Your task to perform on an android device: add a contact Image 0: 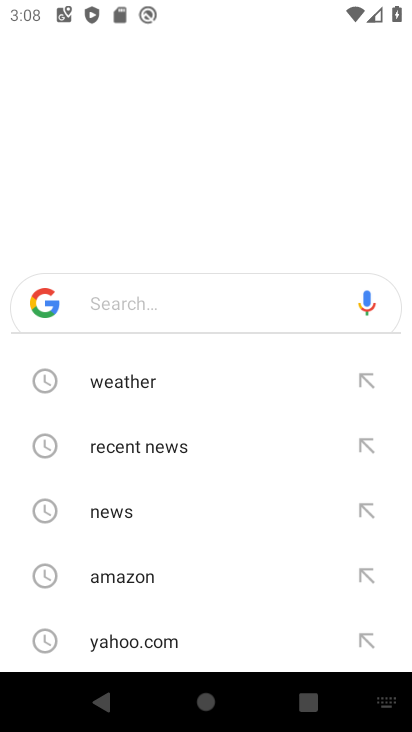
Step 0: press home button
Your task to perform on an android device: add a contact Image 1: 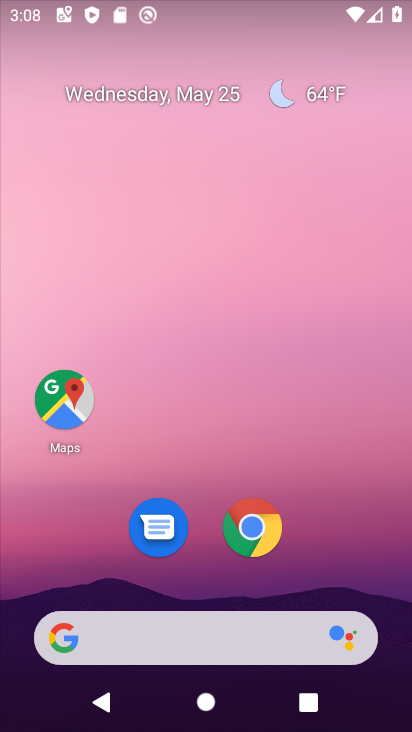
Step 1: drag from (227, 563) to (241, 79)
Your task to perform on an android device: add a contact Image 2: 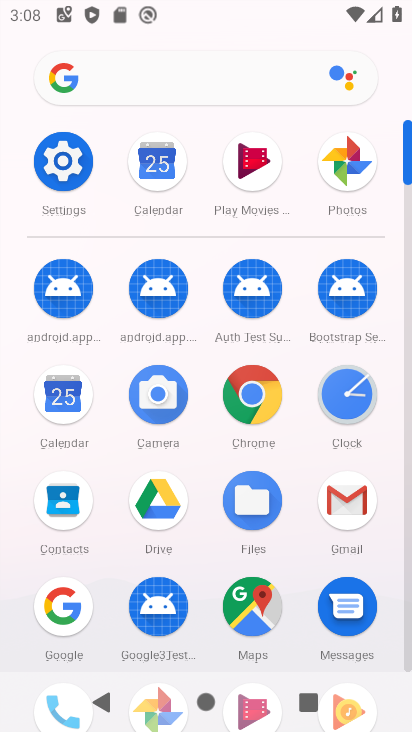
Step 2: click (55, 510)
Your task to perform on an android device: add a contact Image 3: 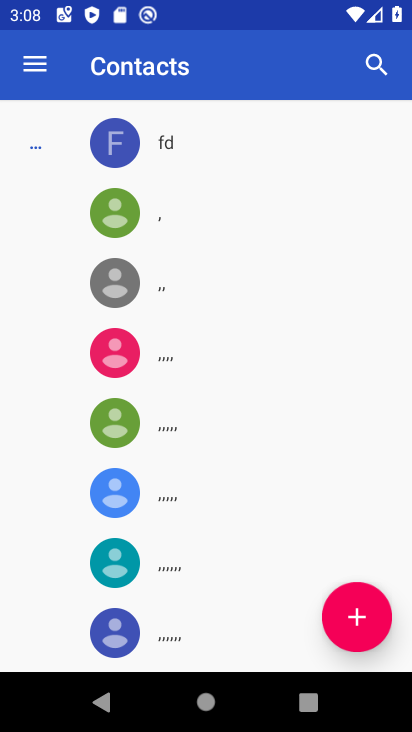
Step 3: click (352, 606)
Your task to perform on an android device: add a contact Image 4: 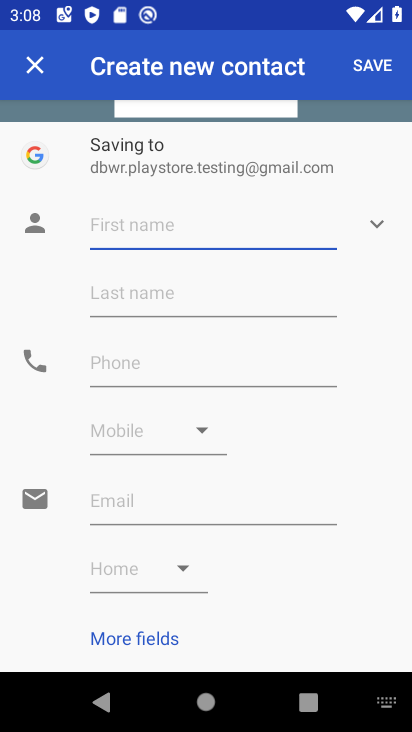
Step 4: click (127, 229)
Your task to perform on an android device: add a contact Image 5: 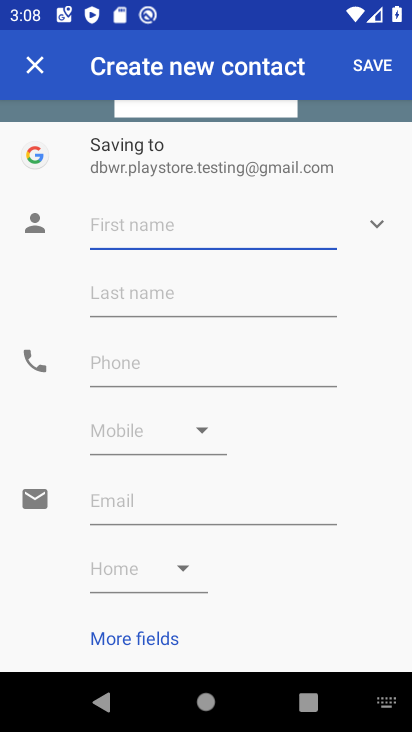
Step 5: type "vcvf"
Your task to perform on an android device: add a contact Image 6: 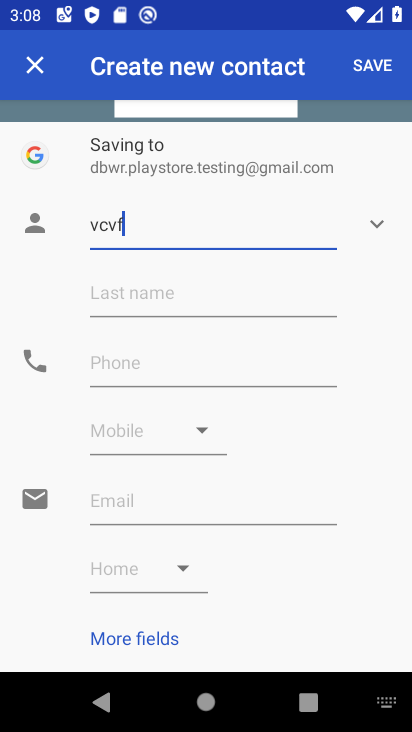
Step 6: click (128, 361)
Your task to perform on an android device: add a contact Image 7: 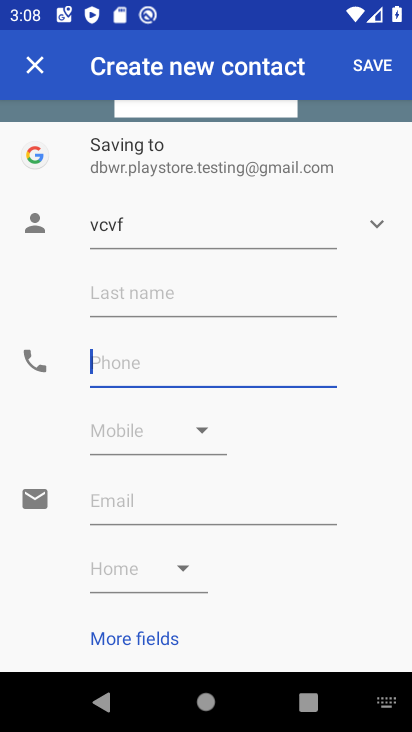
Step 7: type "54464"
Your task to perform on an android device: add a contact Image 8: 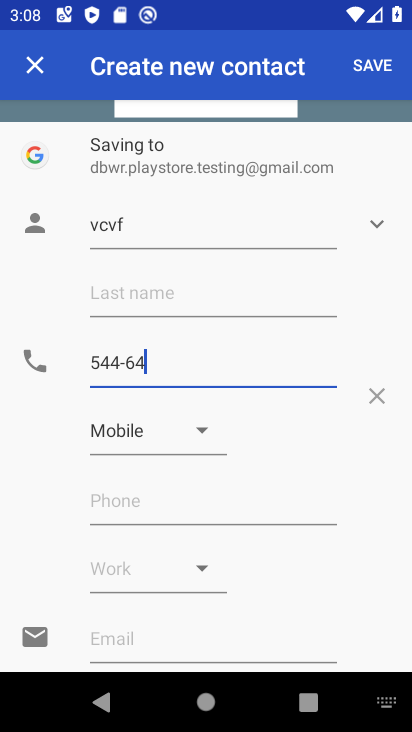
Step 8: click (372, 60)
Your task to perform on an android device: add a contact Image 9: 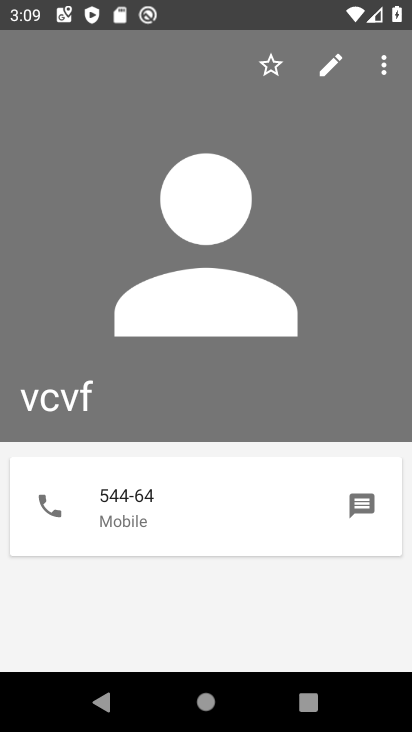
Step 9: task complete